Your task to perform on an android device: Search for Italian restaurants on Maps Image 0: 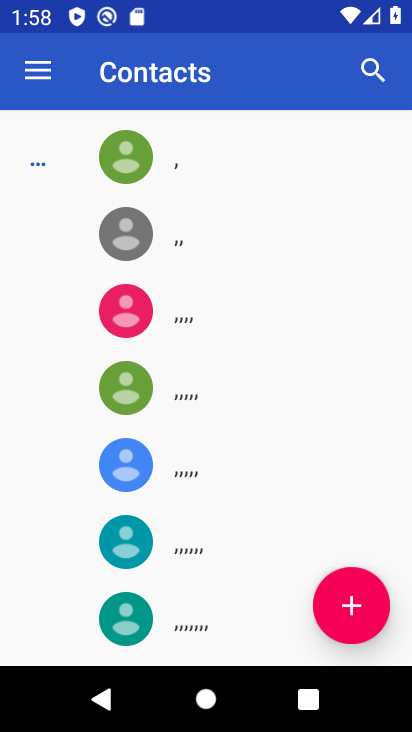
Step 0: press home button
Your task to perform on an android device: Search for Italian restaurants on Maps Image 1: 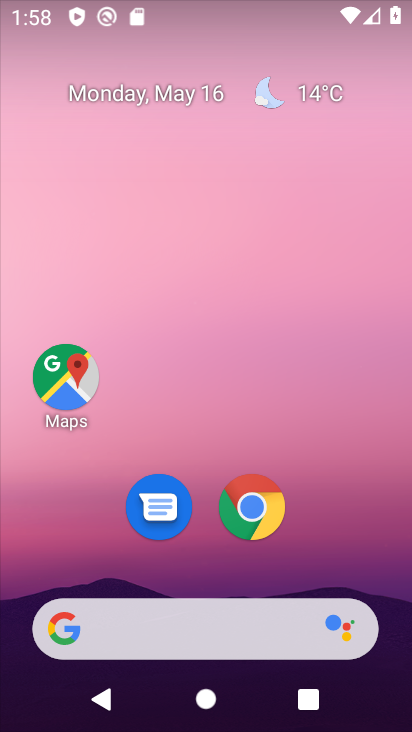
Step 1: drag from (212, 577) to (195, 235)
Your task to perform on an android device: Search for Italian restaurants on Maps Image 2: 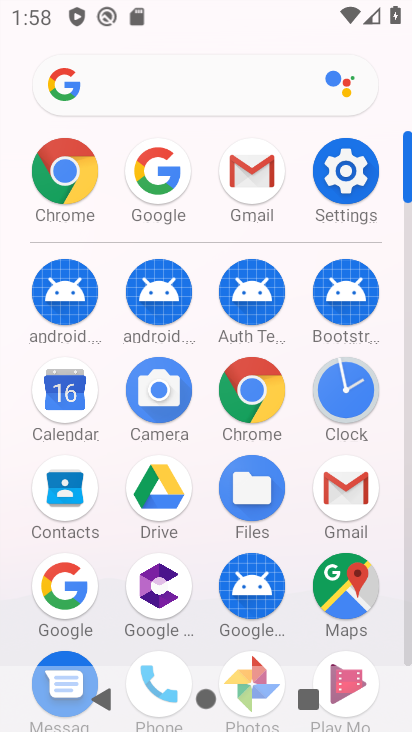
Step 2: click (370, 591)
Your task to perform on an android device: Search for Italian restaurants on Maps Image 3: 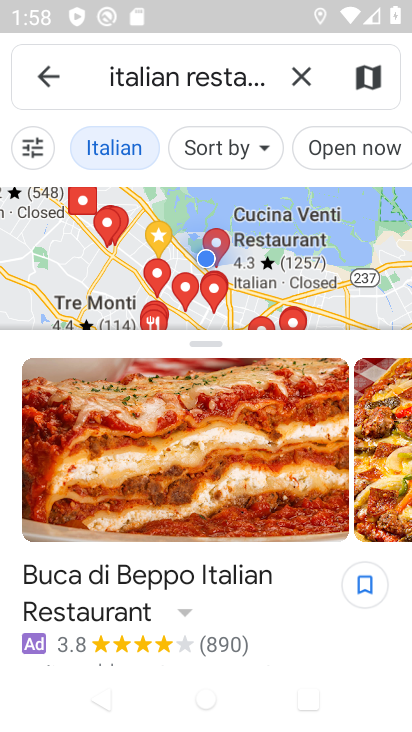
Step 3: task complete